Your task to perform on an android device: change the clock display to digital Image 0: 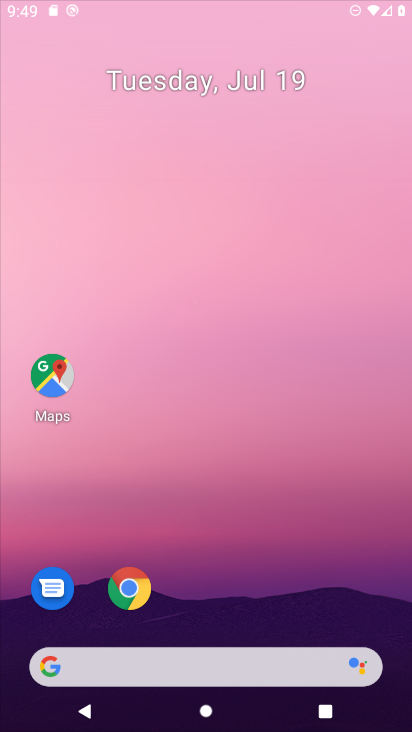
Step 0: click (255, 203)
Your task to perform on an android device: change the clock display to digital Image 1: 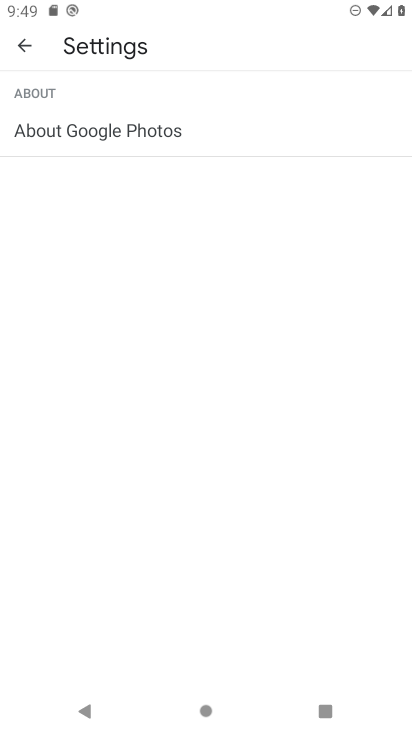
Step 1: click (15, 45)
Your task to perform on an android device: change the clock display to digital Image 2: 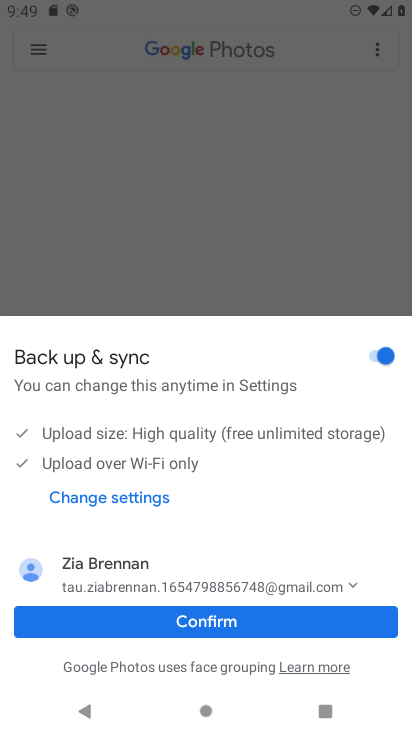
Step 2: click (172, 176)
Your task to perform on an android device: change the clock display to digital Image 3: 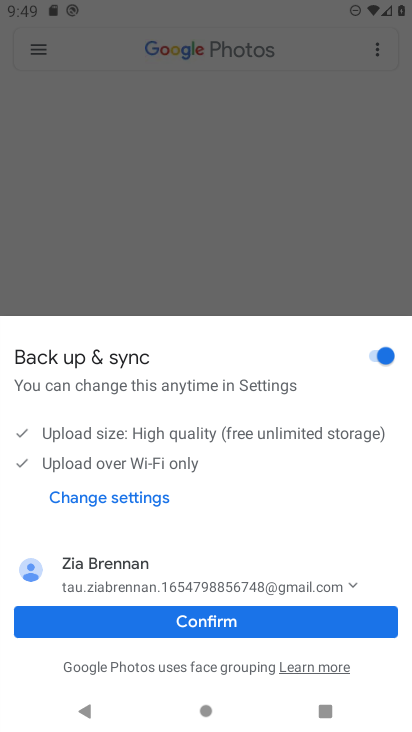
Step 3: click (178, 187)
Your task to perform on an android device: change the clock display to digital Image 4: 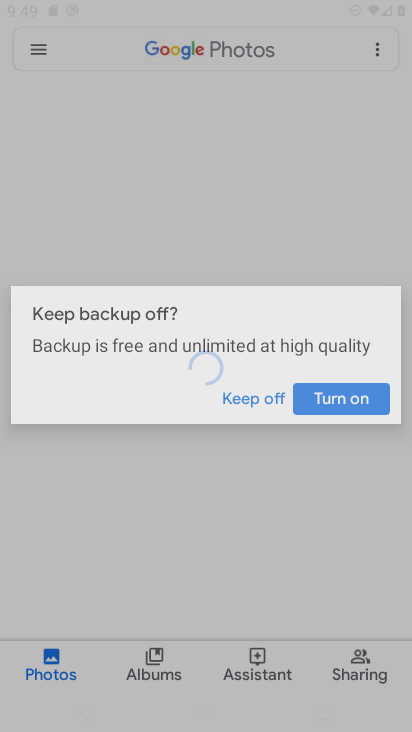
Step 4: click (179, 189)
Your task to perform on an android device: change the clock display to digital Image 5: 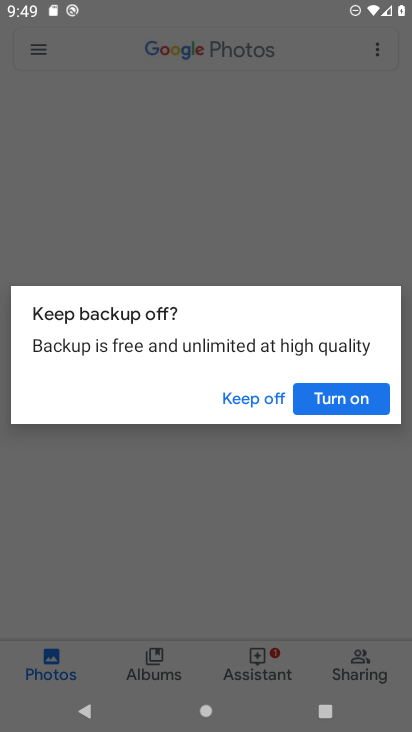
Step 5: click (242, 394)
Your task to perform on an android device: change the clock display to digital Image 6: 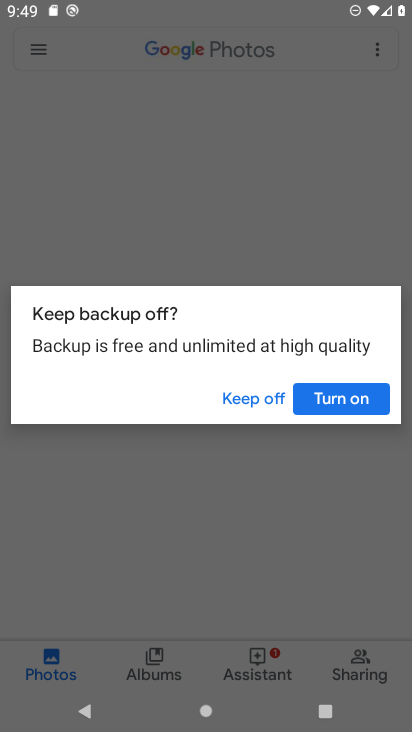
Step 6: click (241, 395)
Your task to perform on an android device: change the clock display to digital Image 7: 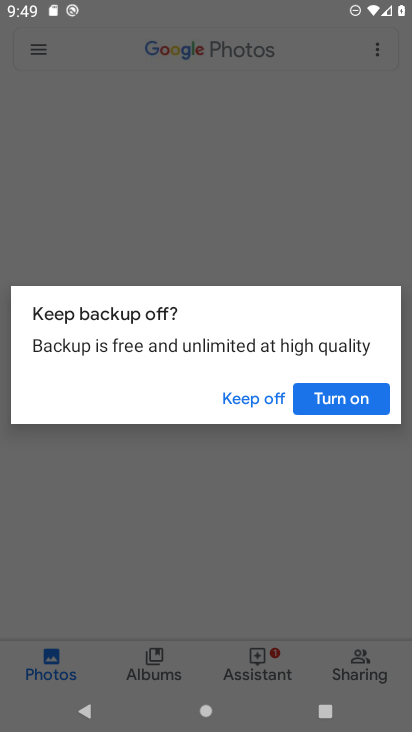
Step 7: click (242, 397)
Your task to perform on an android device: change the clock display to digital Image 8: 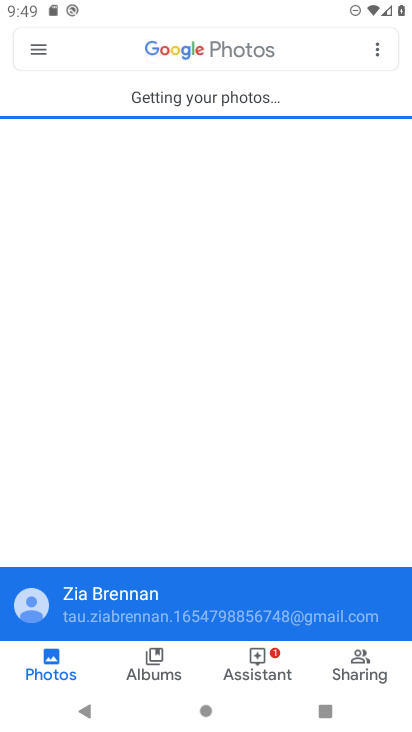
Step 8: press back button
Your task to perform on an android device: change the clock display to digital Image 9: 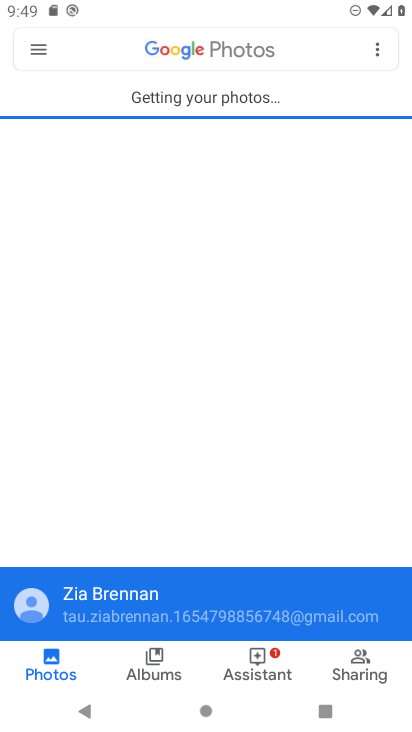
Step 9: press back button
Your task to perform on an android device: change the clock display to digital Image 10: 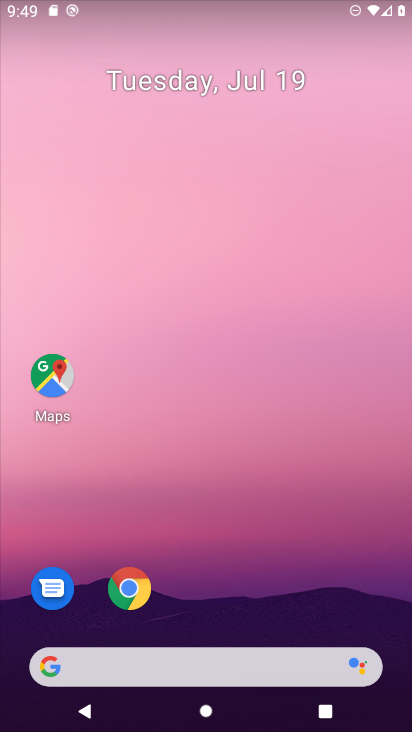
Step 10: drag from (273, 622) to (206, 74)
Your task to perform on an android device: change the clock display to digital Image 11: 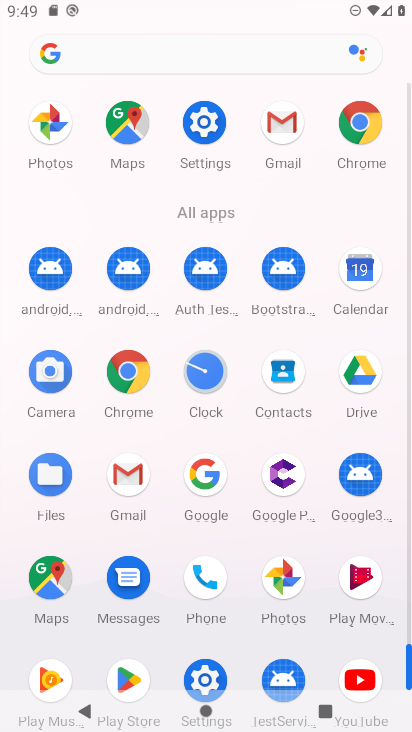
Step 11: click (205, 375)
Your task to perform on an android device: change the clock display to digital Image 12: 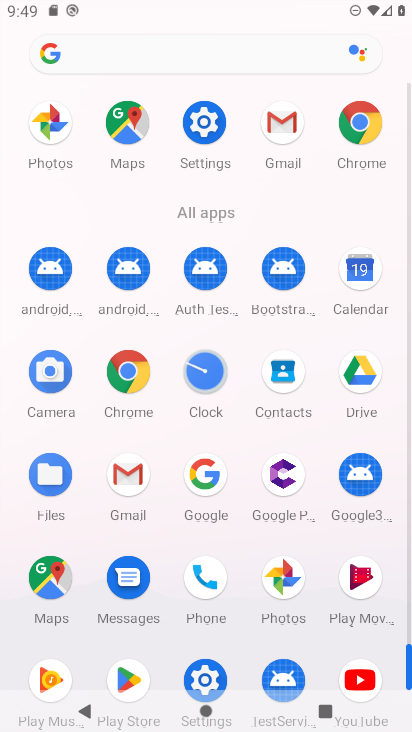
Step 12: click (205, 376)
Your task to perform on an android device: change the clock display to digital Image 13: 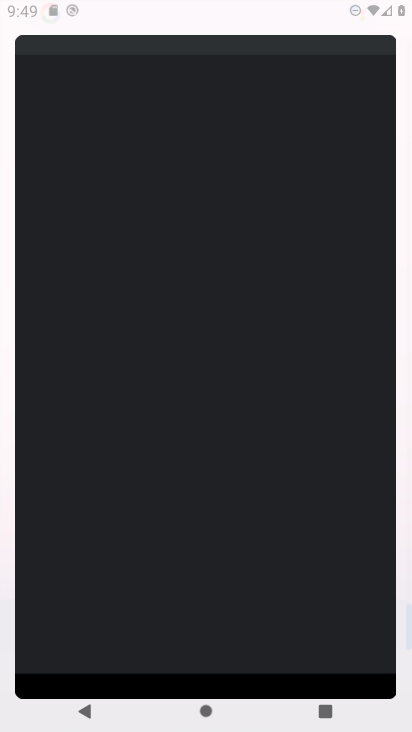
Step 13: click (209, 373)
Your task to perform on an android device: change the clock display to digital Image 14: 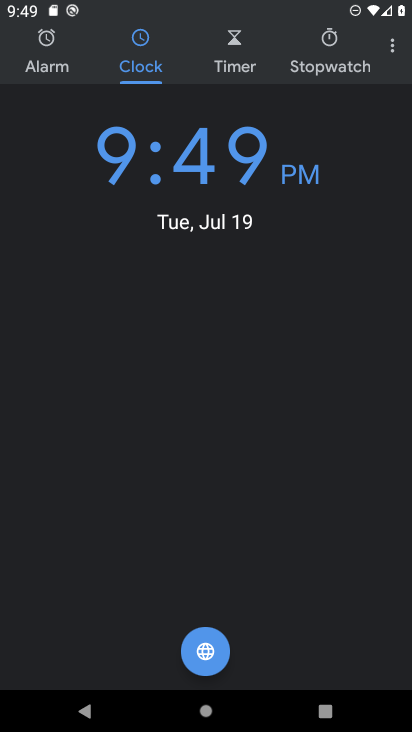
Step 14: click (398, 40)
Your task to perform on an android device: change the clock display to digital Image 15: 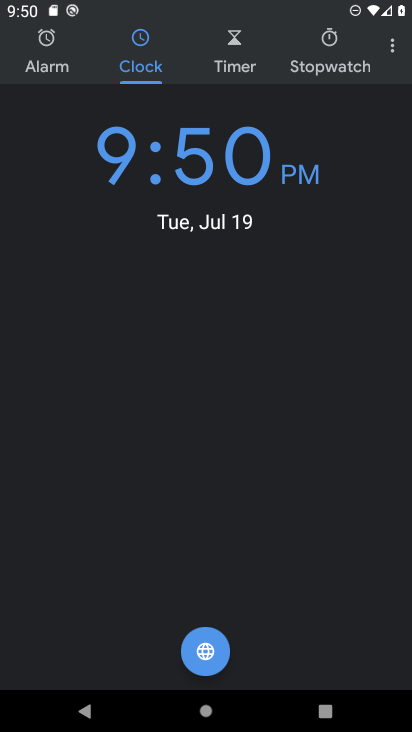
Step 15: click (395, 48)
Your task to perform on an android device: change the clock display to digital Image 16: 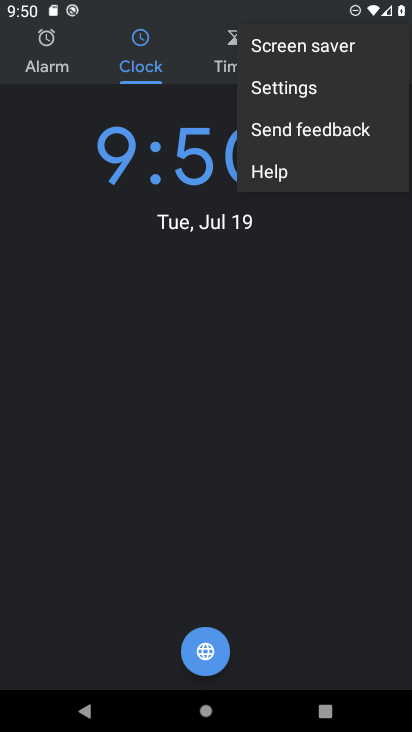
Step 16: click (286, 90)
Your task to perform on an android device: change the clock display to digital Image 17: 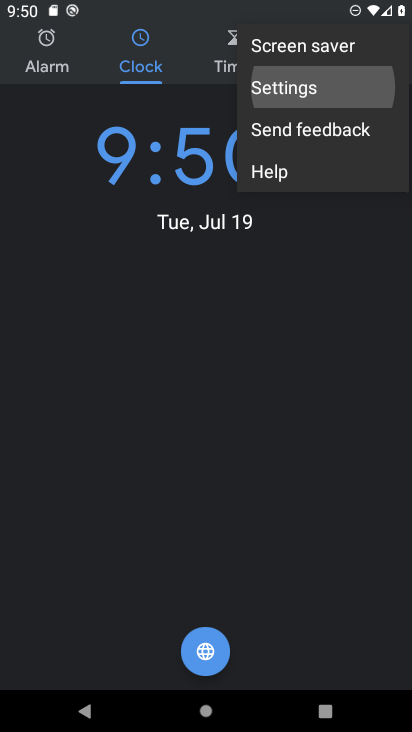
Step 17: click (286, 90)
Your task to perform on an android device: change the clock display to digital Image 18: 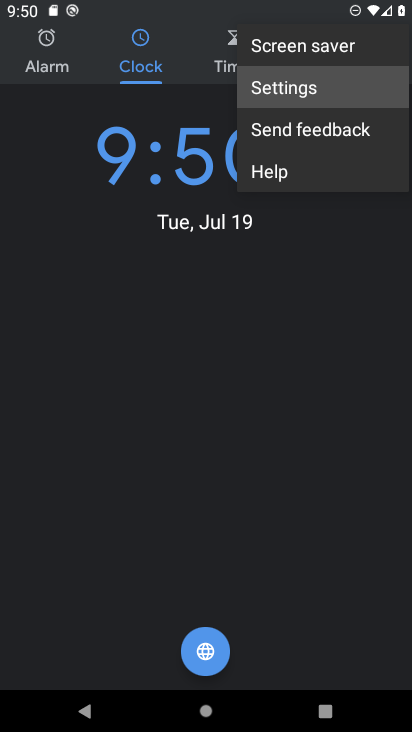
Step 18: click (286, 90)
Your task to perform on an android device: change the clock display to digital Image 19: 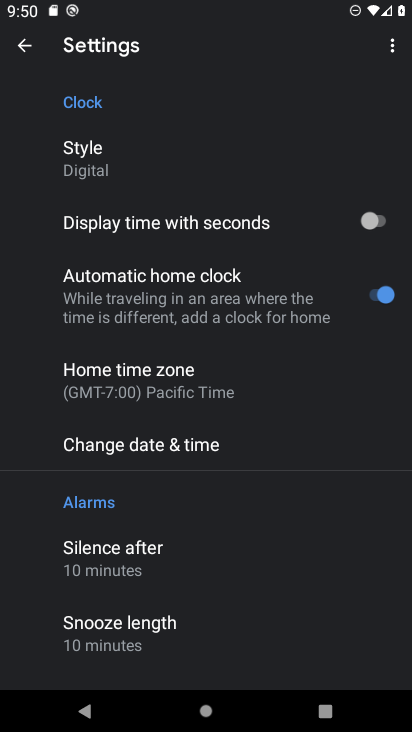
Step 19: task complete